Your task to perform on an android device: turn on showing notifications on the lock screen Image 0: 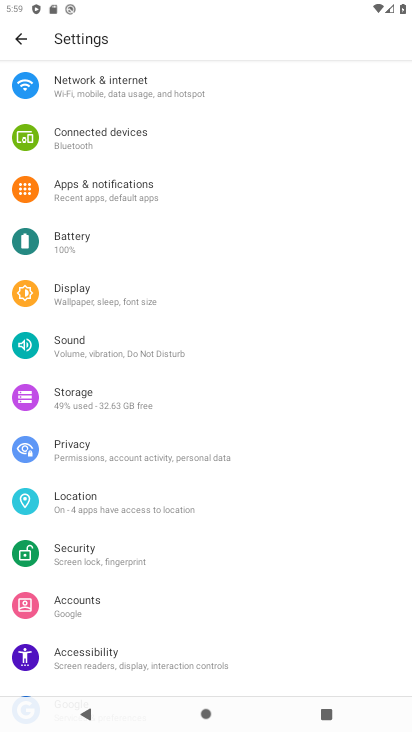
Step 0: press home button
Your task to perform on an android device: turn on showing notifications on the lock screen Image 1: 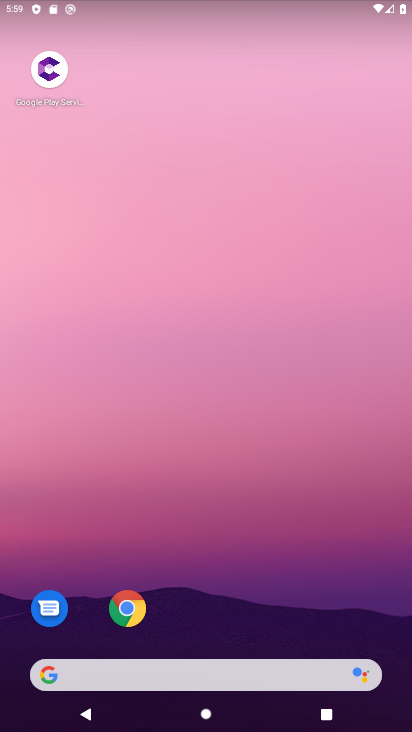
Step 1: drag from (221, 578) to (222, 205)
Your task to perform on an android device: turn on showing notifications on the lock screen Image 2: 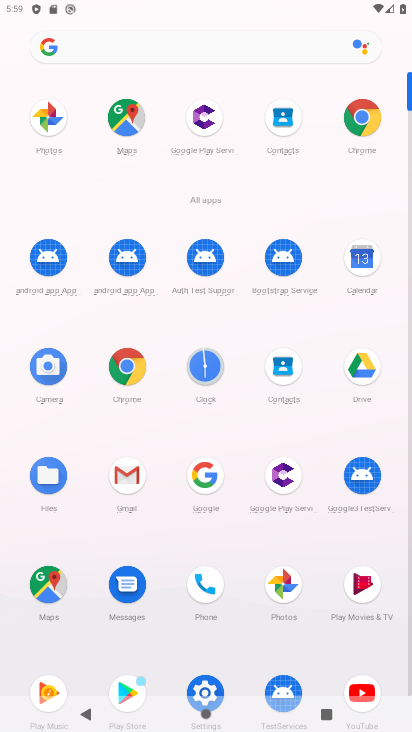
Step 2: drag from (209, 676) to (228, 494)
Your task to perform on an android device: turn on showing notifications on the lock screen Image 3: 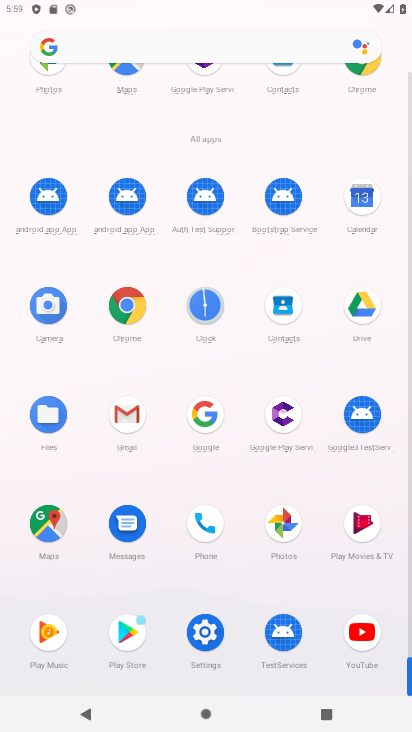
Step 3: click (202, 640)
Your task to perform on an android device: turn on showing notifications on the lock screen Image 4: 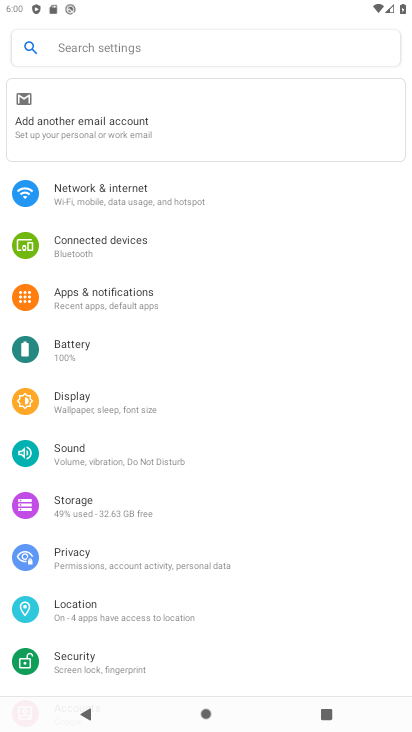
Step 4: click (96, 614)
Your task to perform on an android device: turn on showing notifications on the lock screen Image 5: 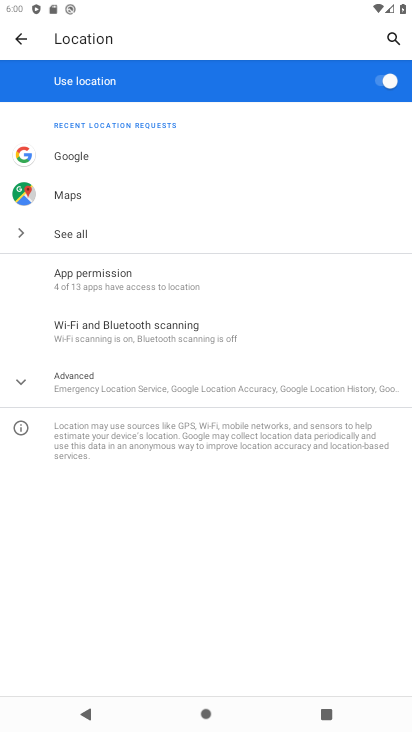
Step 5: click (22, 34)
Your task to perform on an android device: turn on showing notifications on the lock screen Image 6: 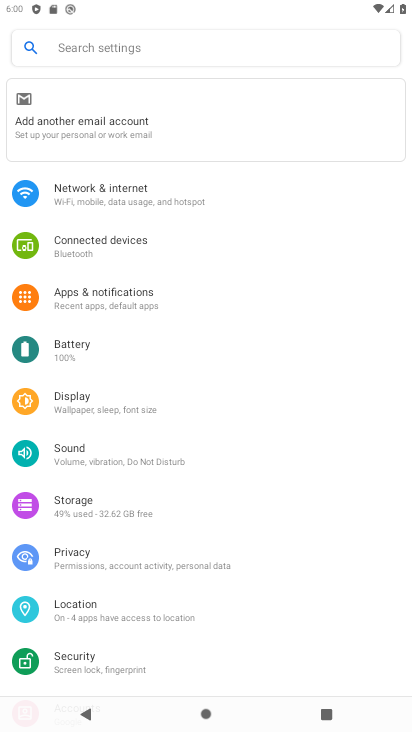
Step 6: click (136, 299)
Your task to perform on an android device: turn on showing notifications on the lock screen Image 7: 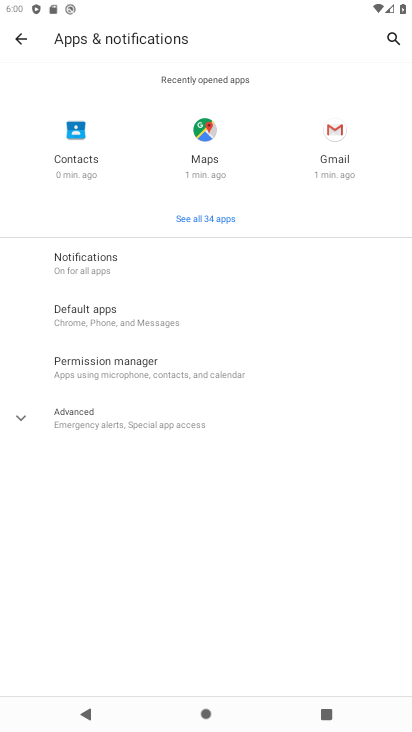
Step 7: click (95, 266)
Your task to perform on an android device: turn on showing notifications on the lock screen Image 8: 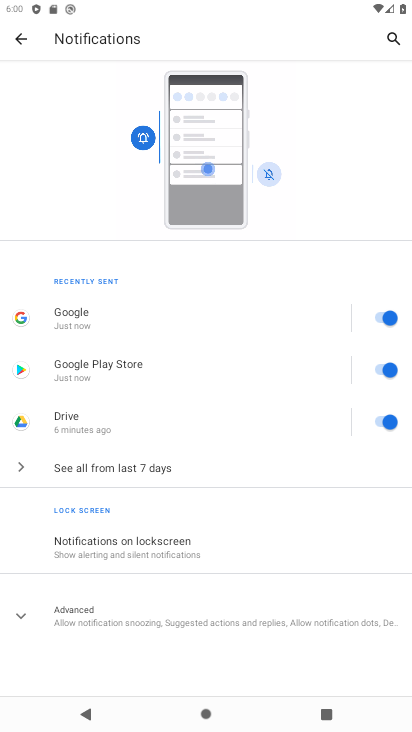
Step 8: click (153, 555)
Your task to perform on an android device: turn on showing notifications on the lock screen Image 9: 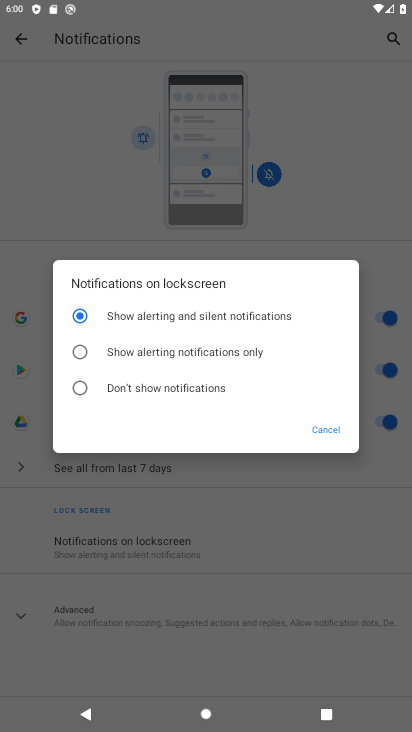
Step 9: task complete